Your task to perform on an android device: Go to Android settings Image 0: 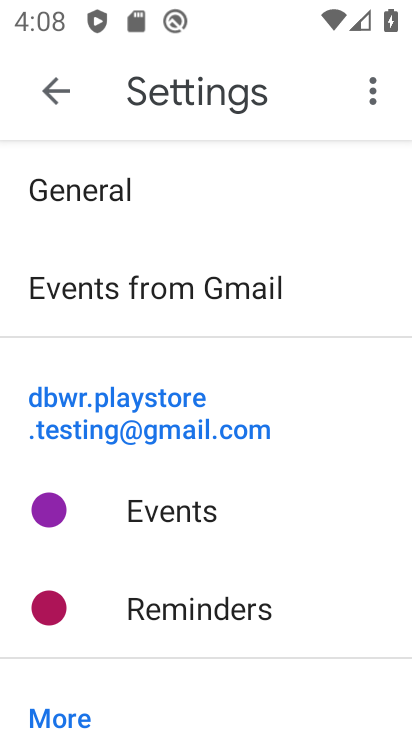
Step 0: press home button
Your task to perform on an android device: Go to Android settings Image 1: 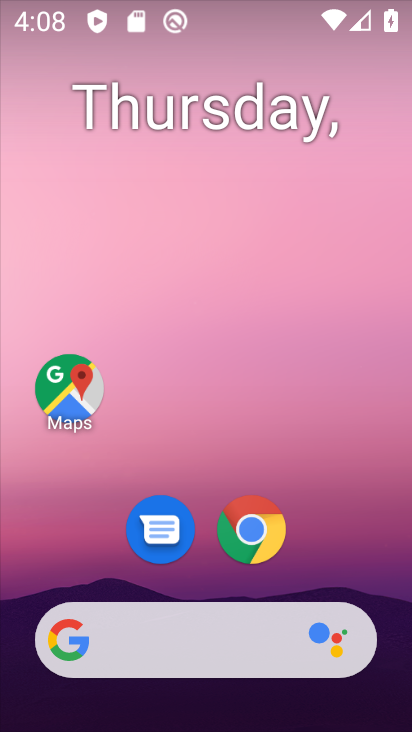
Step 1: drag from (224, 722) to (235, 64)
Your task to perform on an android device: Go to Android settings Image 2: 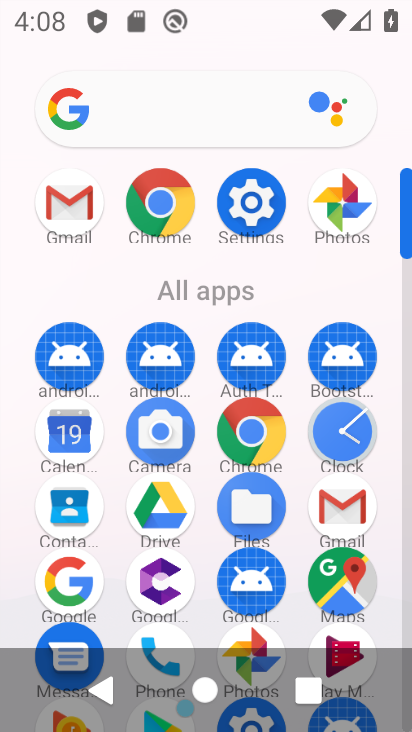
Step 2: click (262, 201)
Your task to perform on an android device: Go to Android settings Image 3: 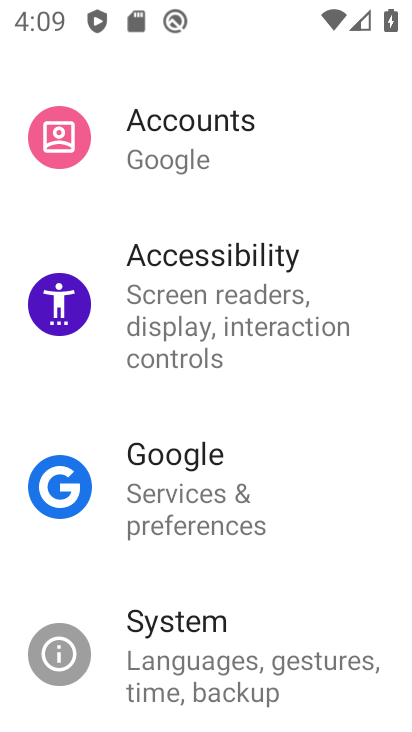
Step 3: task complete